Your task to perform on an android device: stop showing notifications on the lock screen Image 0: 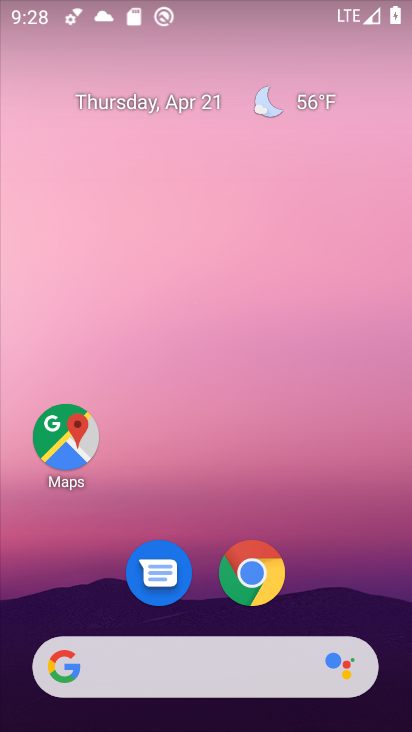
Step 0: drag from (293, 426) to (266, 74)
Your task to perform on an android device: stop showing notifications on the lock screen Image 1: 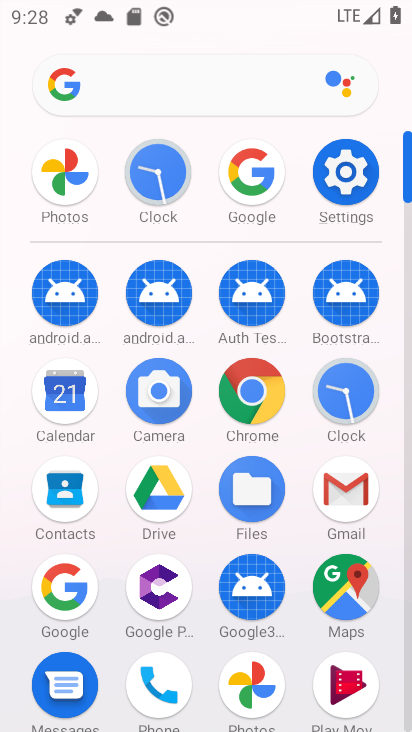
Step 1: click (345, 178)
Your task to perform on an android device: stop showing notifications on the lock screen Image 2: 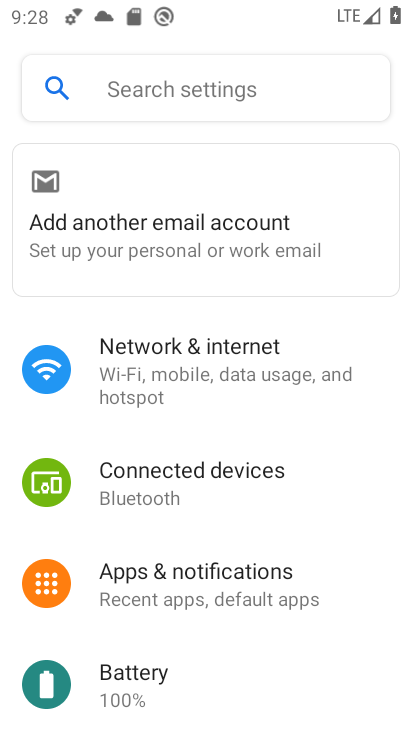
Step 2: click (168, 574)
Your task to perform on an android device: stop showing notifications on the lock screen Image 3: 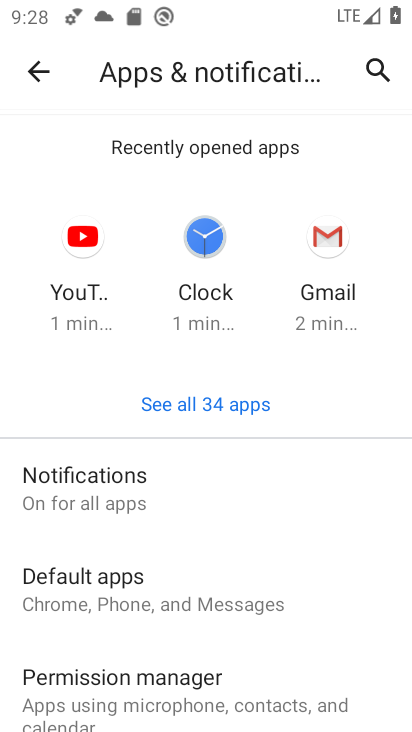
Step 3: click (119, 482)
Your task to perform on an android device: stop showing notifications on the lock screen Image 4: 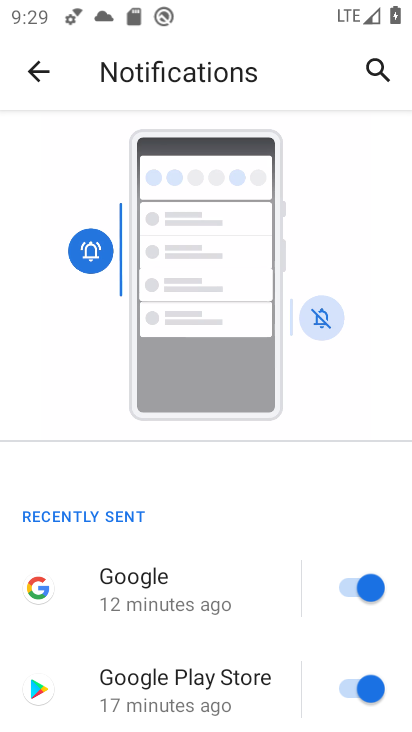
Step 4: drag from (85, 464) to (150, 180)
Your task to perform on an android device: stop showing notifications on the lock screen Image 5: 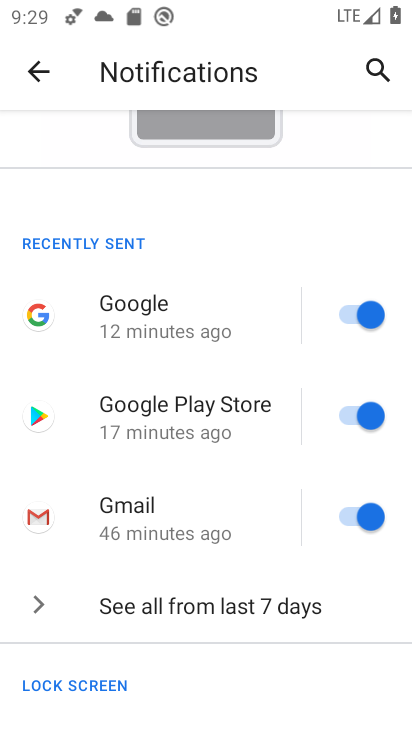
Step 5: drag from (82, 214) to (96, 56)
Your task to perform on an android device: stop showing notifications on the lock screen Image 6: 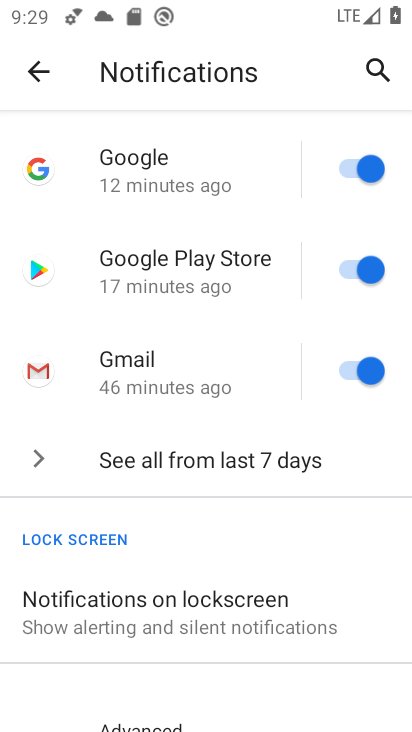
Step 6: click (153, 619)
Your task to perform on an android device: stop showing notifications on the lock screen Image 7: 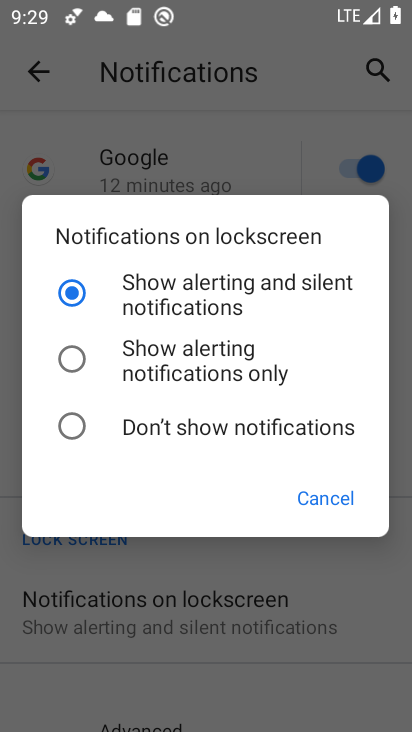
Step 7: click (155, 423)
Your task to perform on an android device: stop showing notifications on the lock screen Image 8: 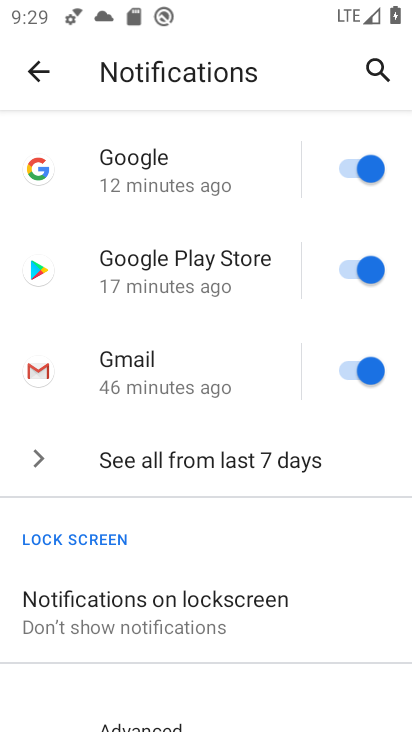
Step 8: task complete